Your task to perform on an android device: Search for sushi restaurants on Maps Image 0: 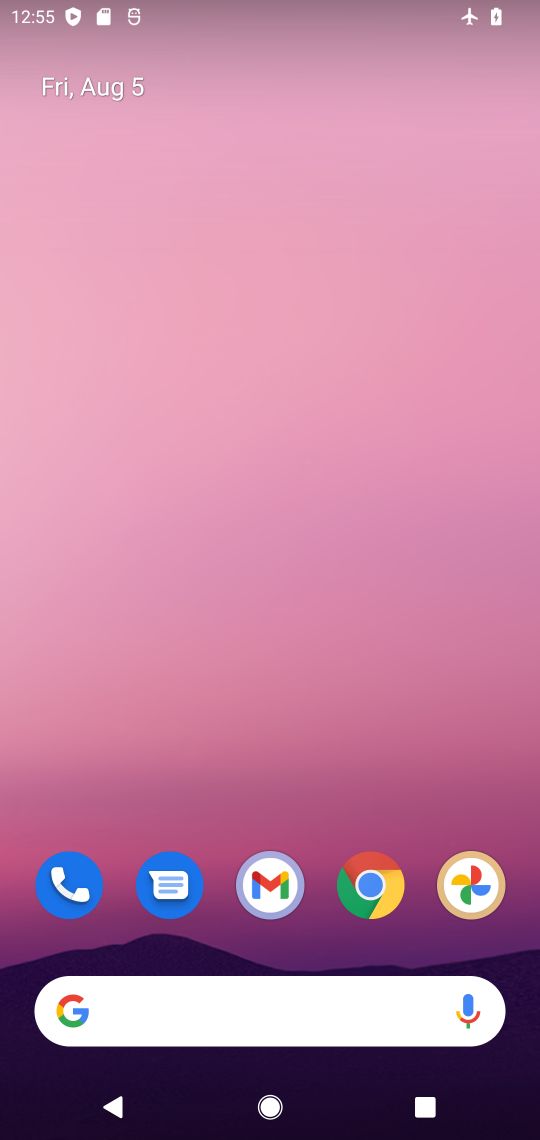
Step 0: drag from (283, 700) to (274, 305)
Your task to perform on an android device: Search for sushi restaurants on Maps Image 1: 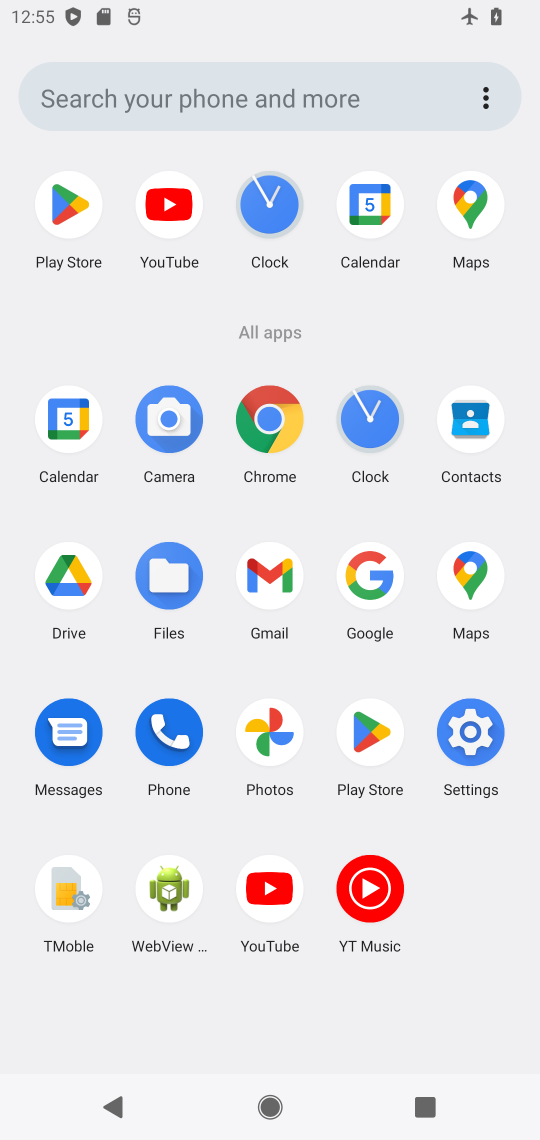
Step 1: click (466, 596)
Your task to perform on an android device: Search for sushi restaurants on Maps Image 2: 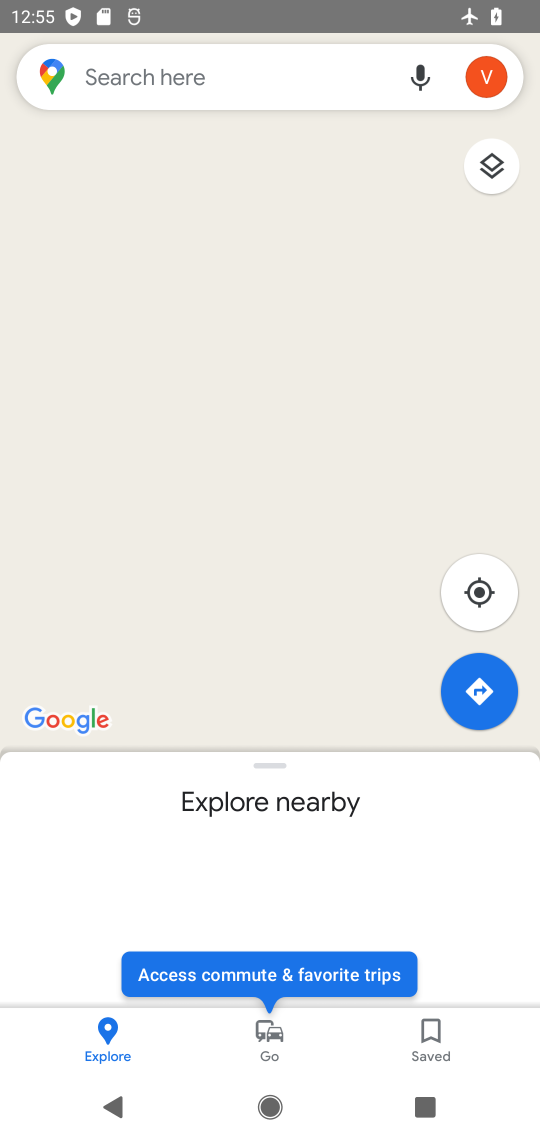
Step 2: task complete